Your task to perform on an android device: What is the recent news? Image 0: 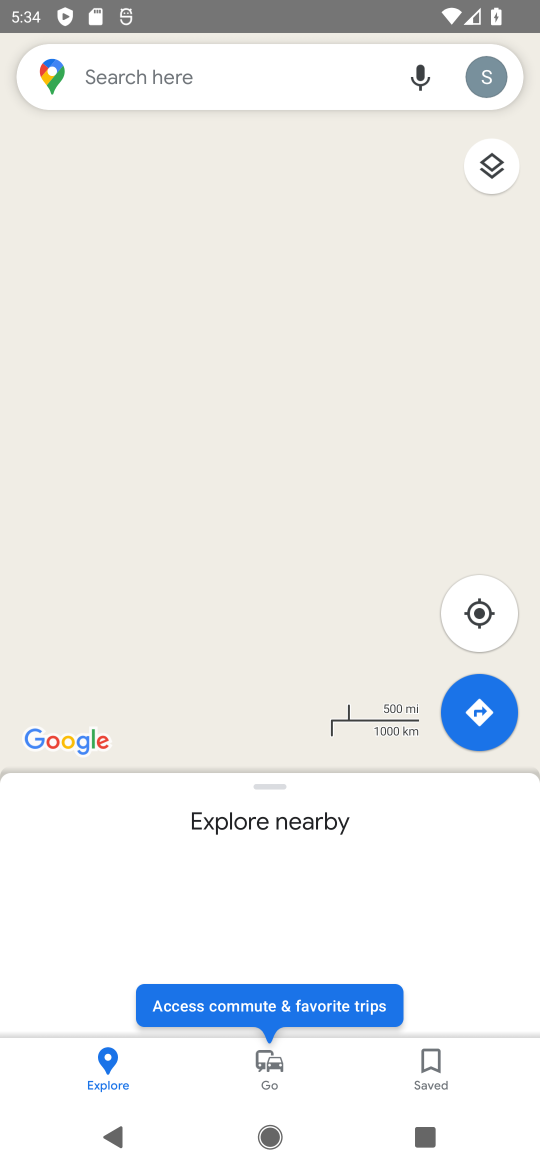
Step 0: press home button
Your task to perform on an android device: What is the recent news? Image 1: 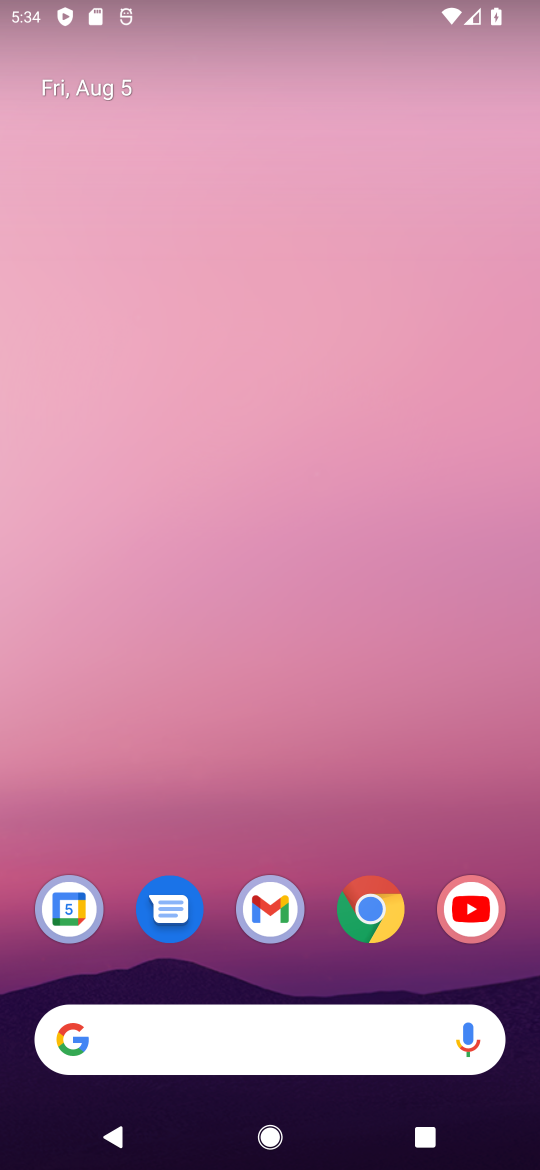
Step 1: click (65, 1033)
Your task to perform on an android device: What is the recent news? Image 2: 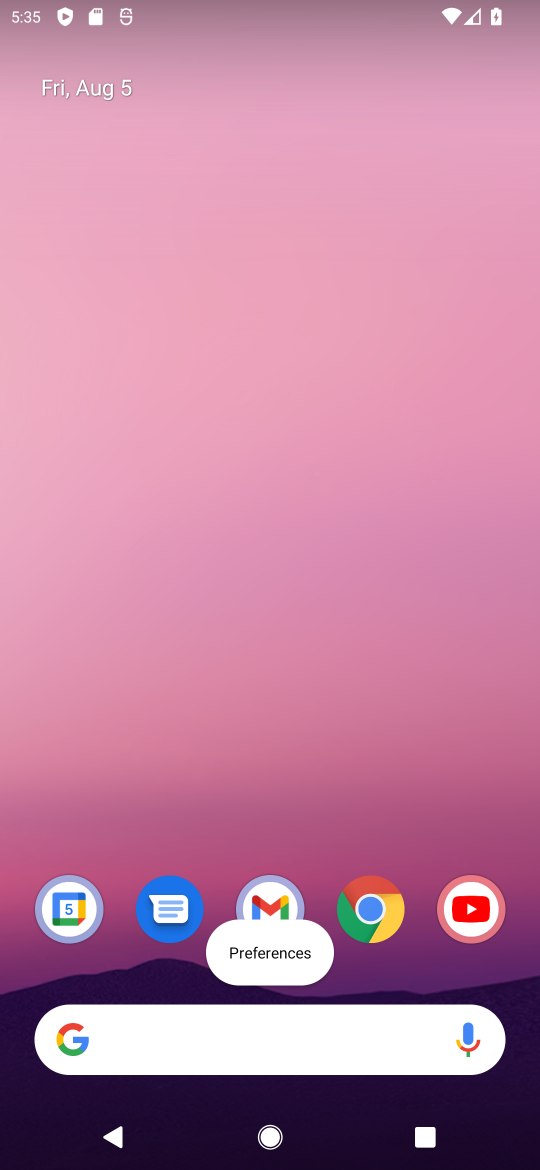
Step 2: click (50, 1038)
Your task to perform on an android device: What is the recent news? Image 3: 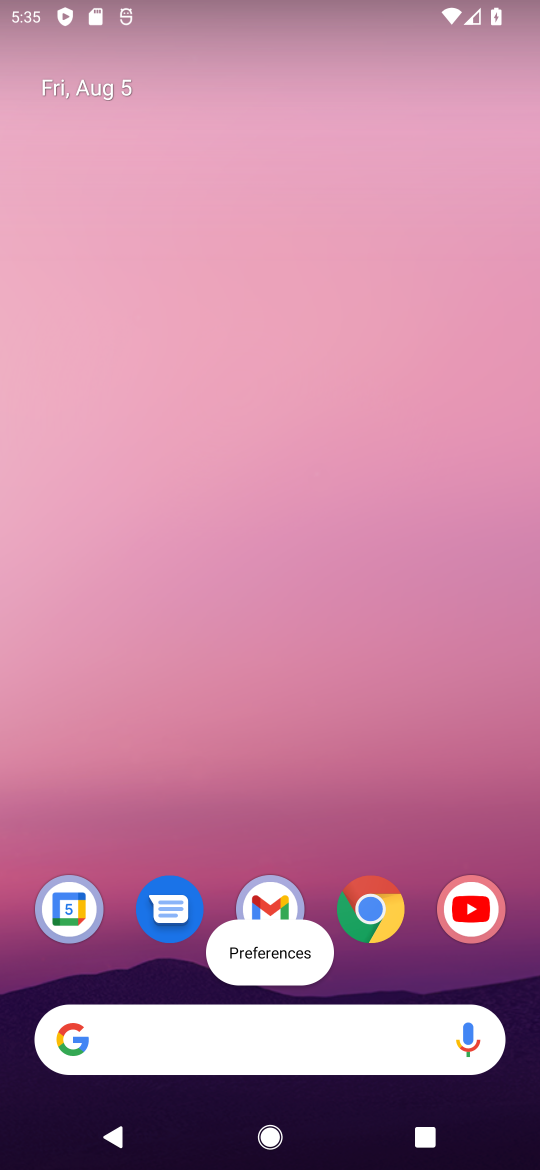
Step 3: click (59, 1038)
Your task to perform on an android device: What is the recent news? Image 4: 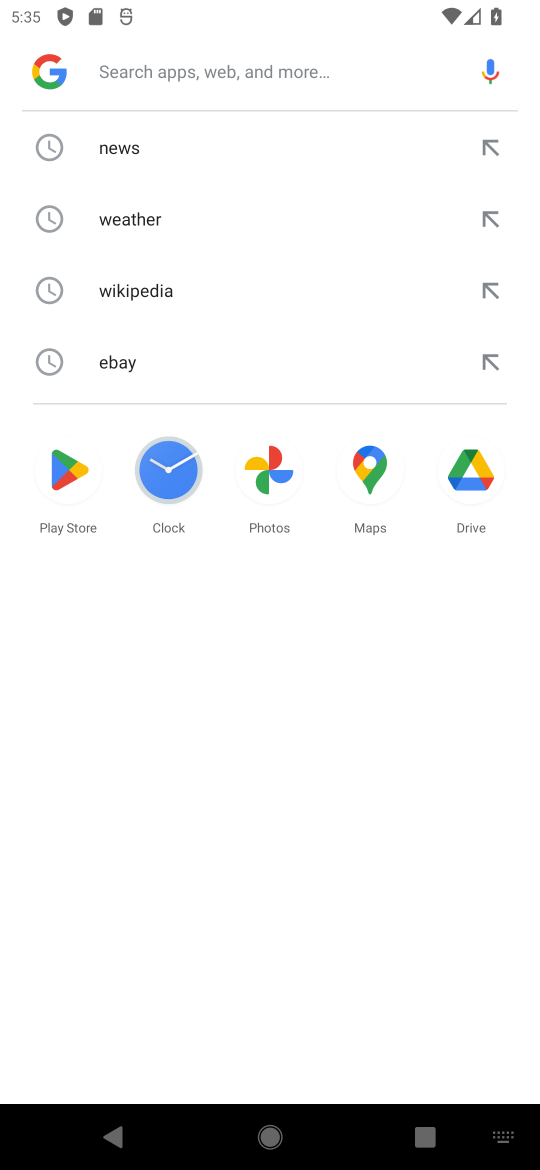
Step 4: type " recent news"
Your task to perform on an android device: What is the recent news? Image 5: 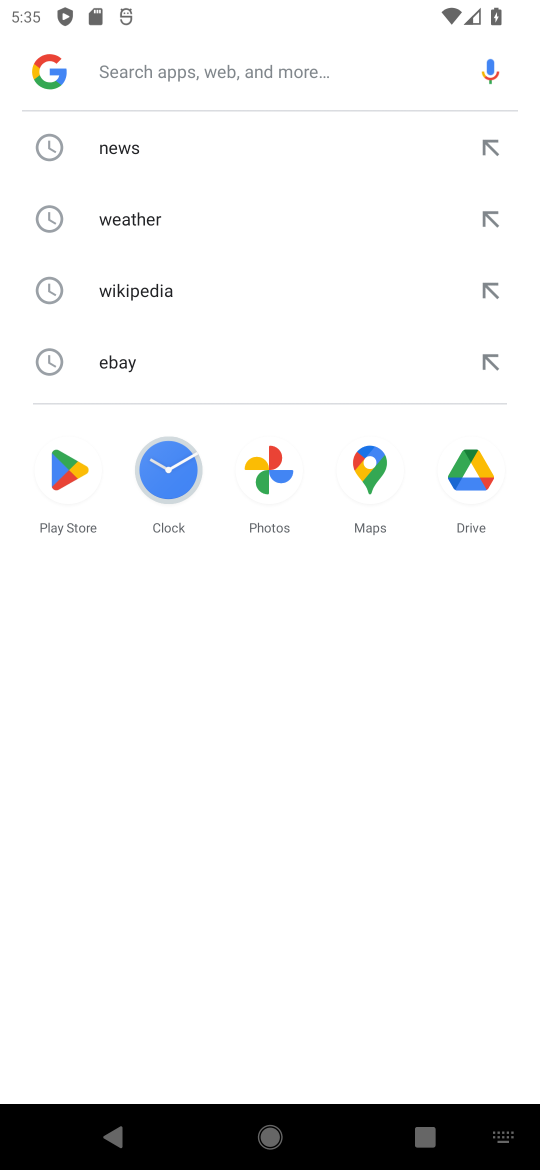
Step 5: click (184, 84)
Your task to perform on an android device: What is the recent news? Image 6: 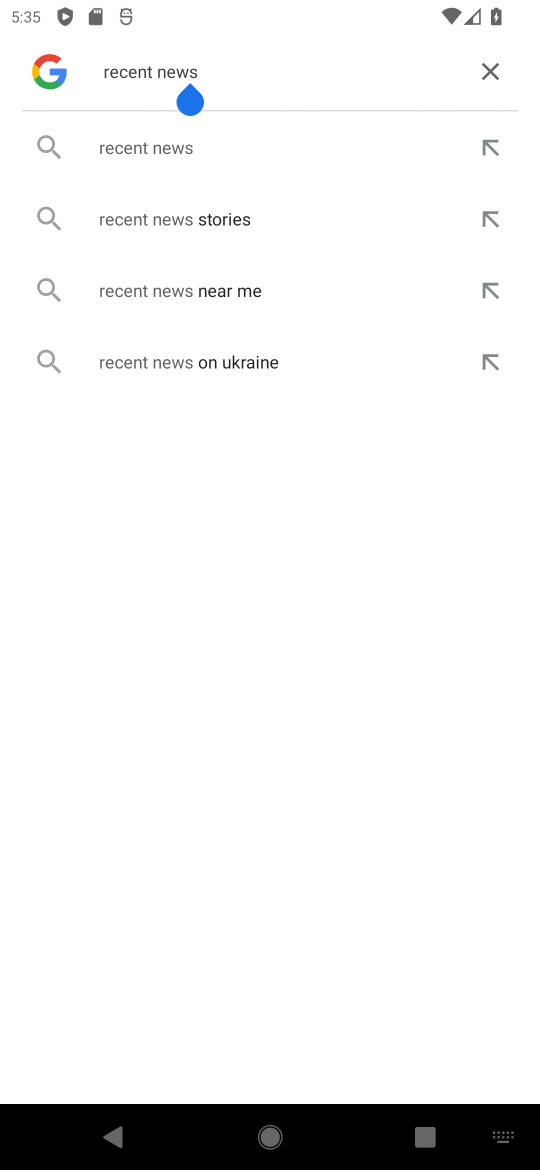
Step 6: click (168, 149)
Your task to perform on an android device: What is the recent news? Image 7: 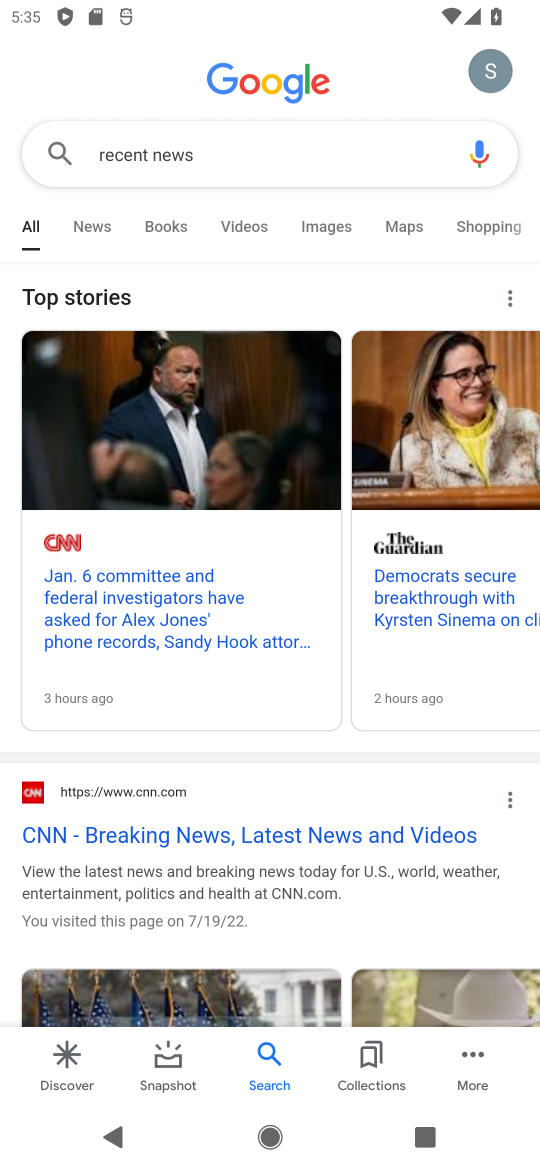
Step 7: task complete